Your task to perform on an android device: turn pop-ups off in chrome Image 0: 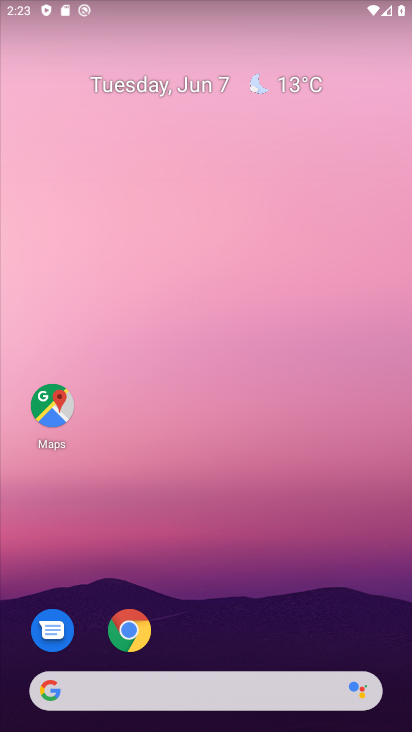
Step 0: click (128, 629)
Your task to perform on an android device: turn pop-ups off in chrome Image 1: 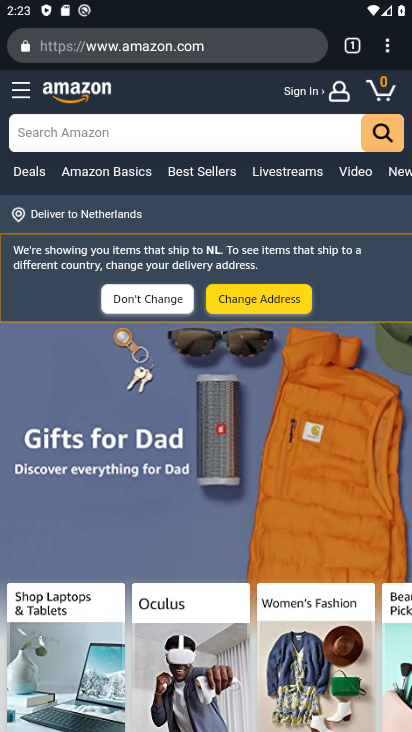
Step 1: drag from (382, 42) to (246, 545)
Your task to perform on an android device: turn pop-ups off in chrome Image 2: 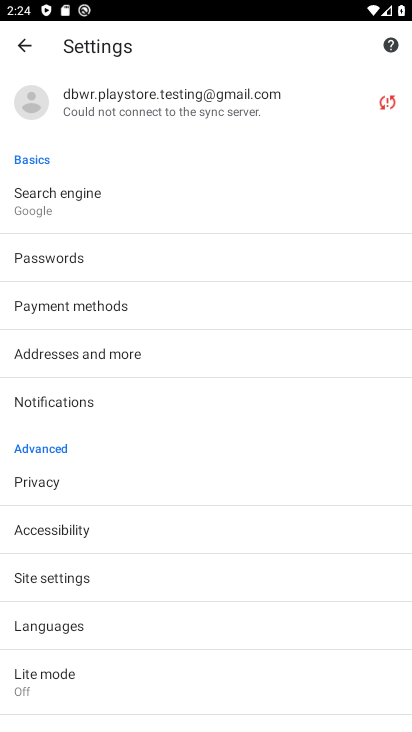
Step 2: click (98, 577)
Your task to perform on an android device: turn pop-ups off in chrome Image 3: 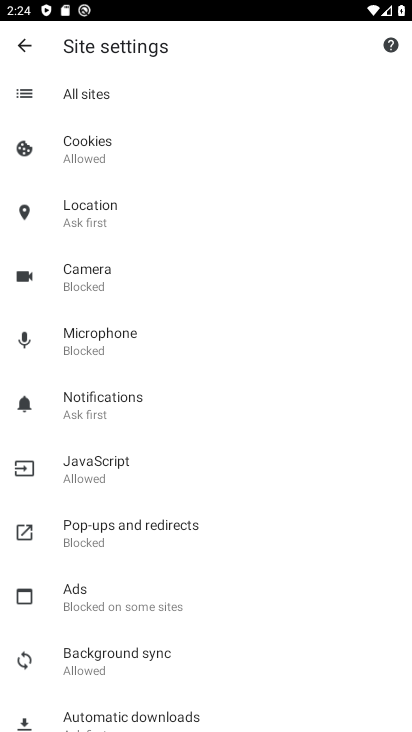
Step 3: click (117, 520)
Your task to perform on an android device: turn pop-ups off in chrome Image 4: 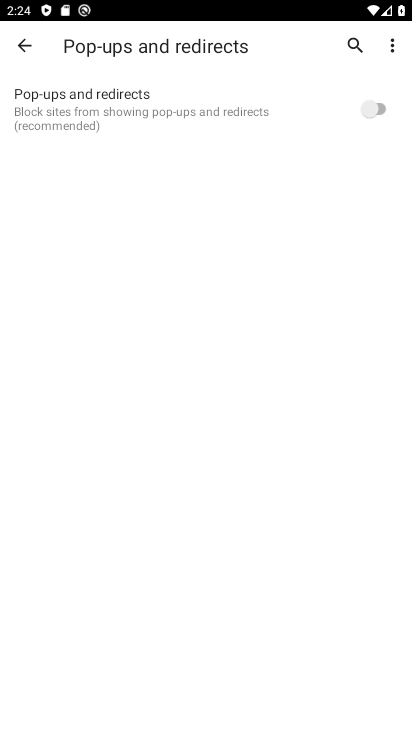
Step 4: task complete